Your task to perform on an android device: Go to calendar. Show me events next week Image 0: 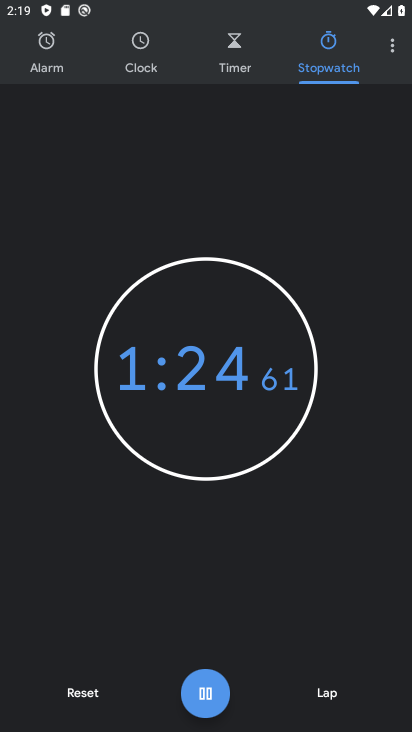
Step 0: press home button
Your task to perform on an android device: Go to calendar. Show me events next week Image 1: 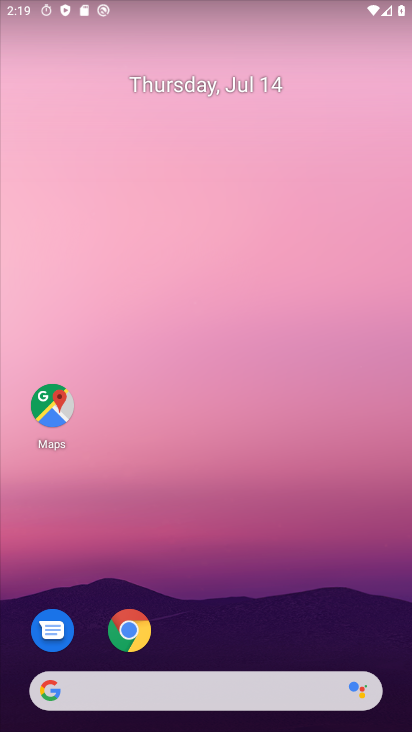
Step 1: drag from (319, 614) to (310, 110)
Your task to perform on an android device: Go to calendar. Show me events next week Image 2: 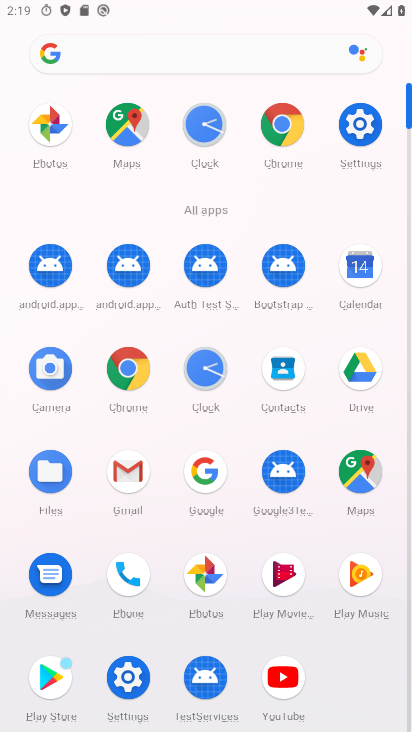
Step 2: click (346, 266)
Your task to perform on an android device: Go to calendar. Show me events next week Image 3: 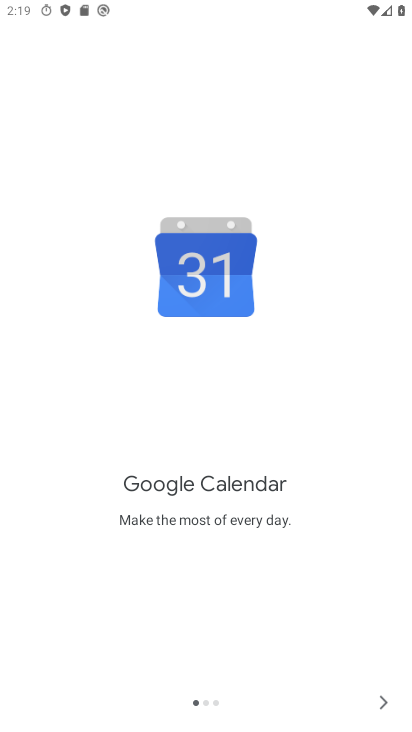
Step 3: click (385, 695)
Your task to perform on an android device: Go to calendar. Show me events next week Image 4: 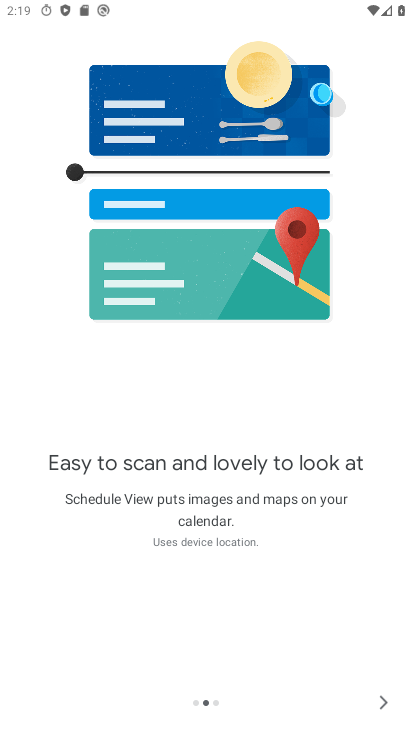
Step 4: click (385, 695)
Your task to perform on an android device: Go to calendar. Show me events next week Image 5: 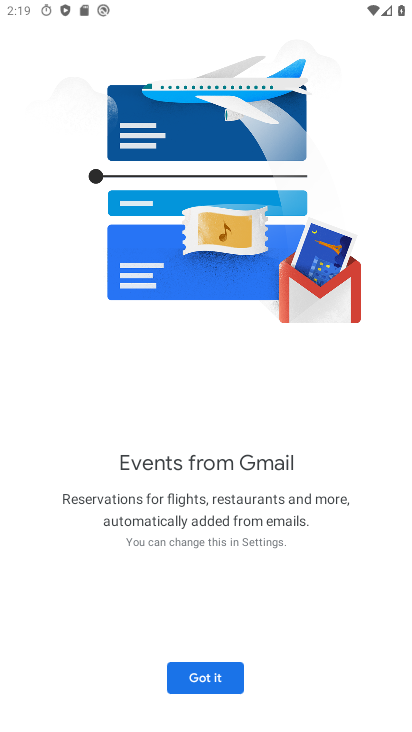
Step 5: click (215, 680)
Your task to perform on an android device: Go to calendar. Show me events next week Image 6: 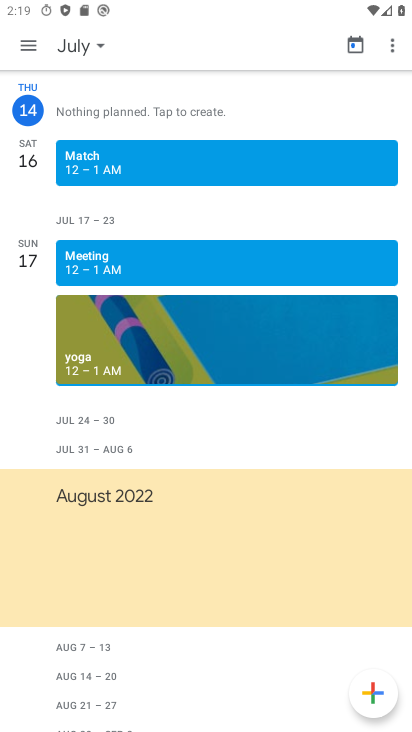
Step 6: click (70, 50)
Your task to perform on an android device: Go to calendar. Show me events next week Image 7: 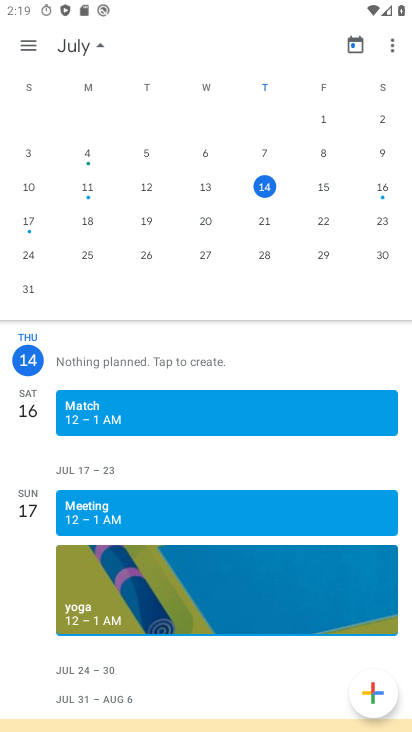
Step 7: click (16, 233)
Your task to perform on an android device: Go to calendar. Show me events next week Image 8: 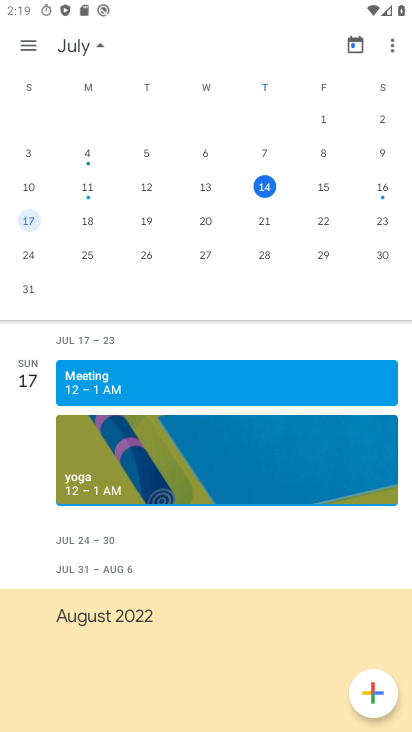
Step 8: click (95, 220)
Your task to perform on an android device: Go to calendar. Show me events next week Image 9: 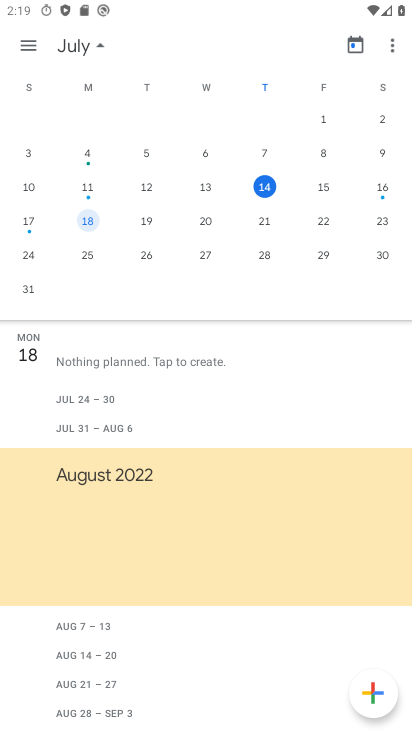
Step 9: click (157, 220)
Your task to perform on an android device: Go to calendar. Show me events next week Image 10: 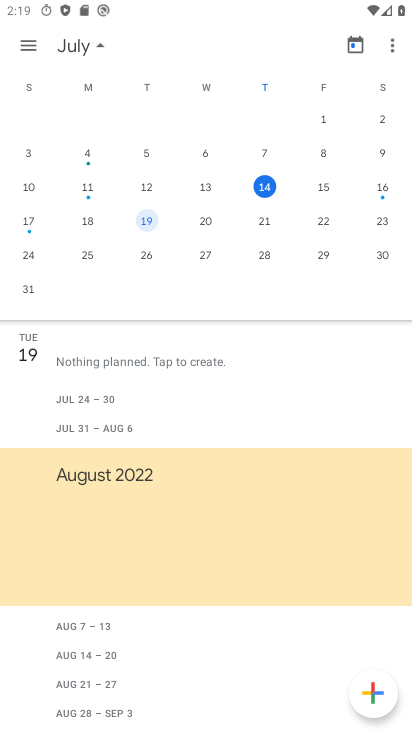
Step 10: click (201, 221)
Your task to perform on an android device: Go to calendar. Show me events next week Image 11: 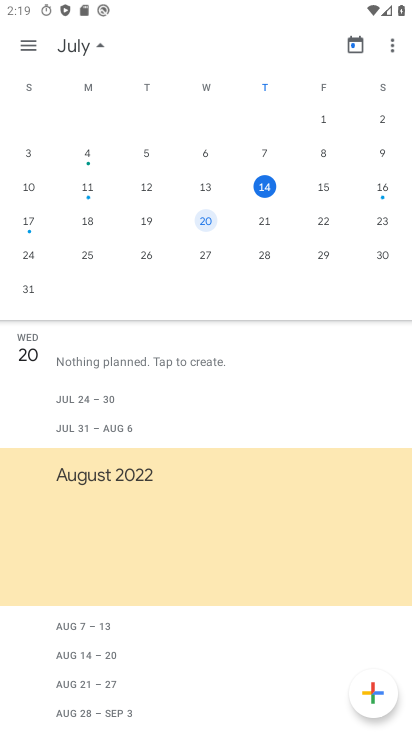
Step 11: click (269, 221)
Your task to perform on an android device: Go to calendar. Show me events next week Image 12: 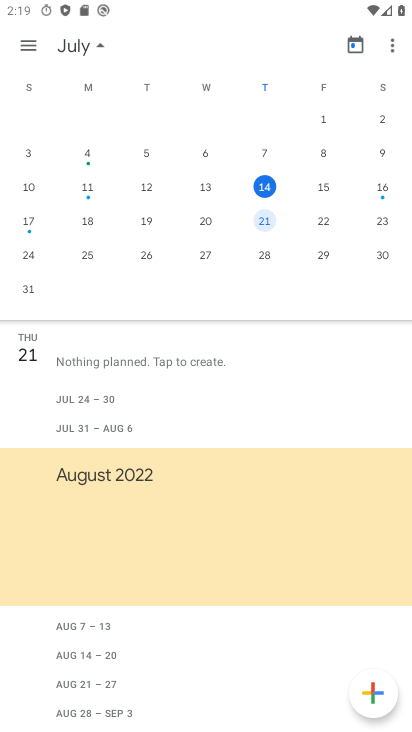
Step 12: click (331, 228)
Your task to perform on an android device: Go to calendar. Show me events next week Image 13: 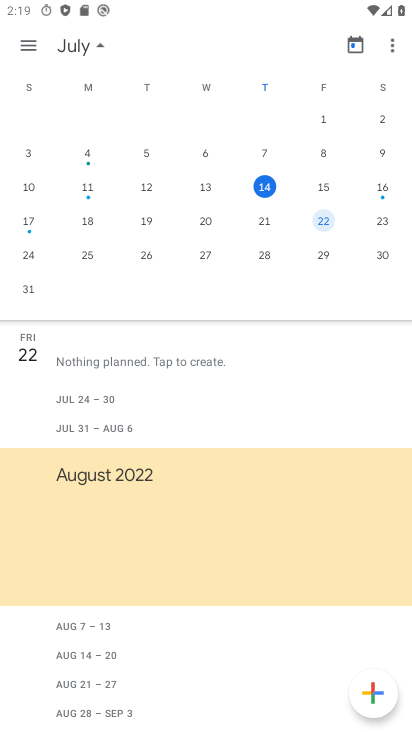
Step 13: click (373, 220)
Your task to perform on an android device: Go to calendar. Show me events next week Image 14: 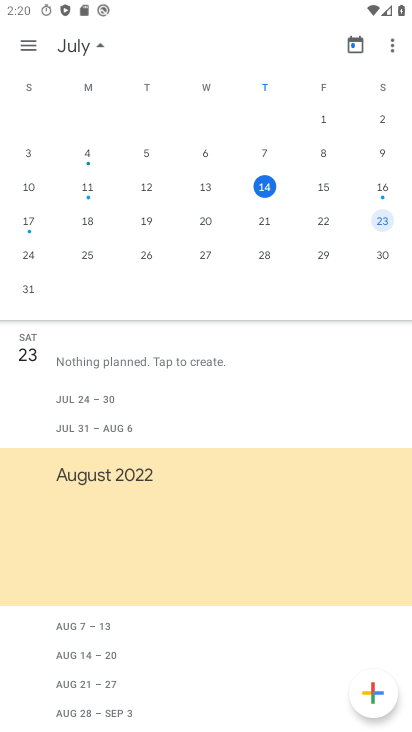
Step 14: task complete